Your task to perform on an android device: toggle data saver in the chrome app Image 0: 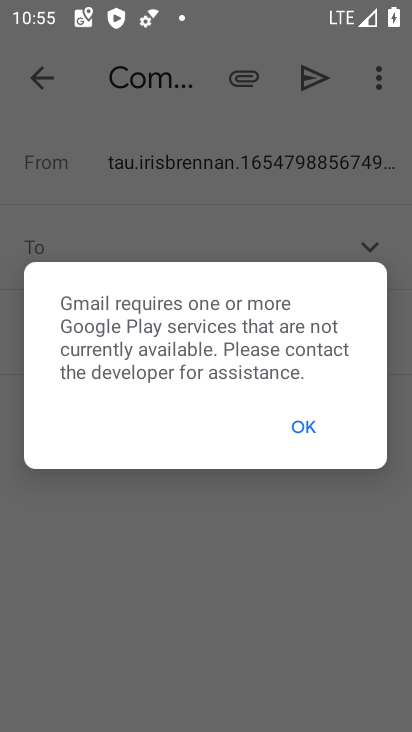
Step 0: click (293, 418)
Your task to perform on an android device: toggle data saver in the chrome app Image 1: 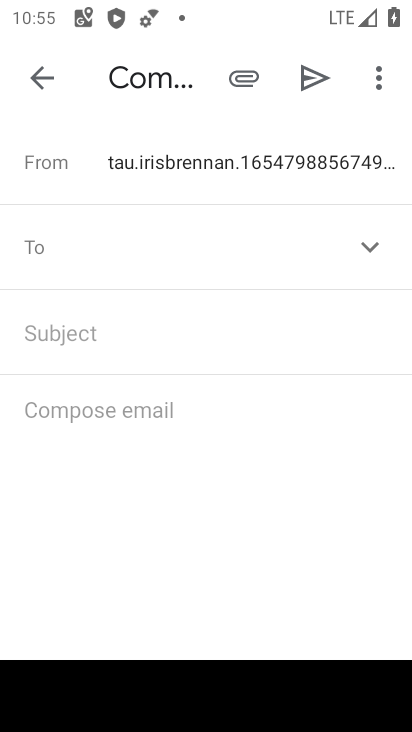
Step 1: press back button
Your task to perform on an android device: toggle data saver in the chrome app Image 2: 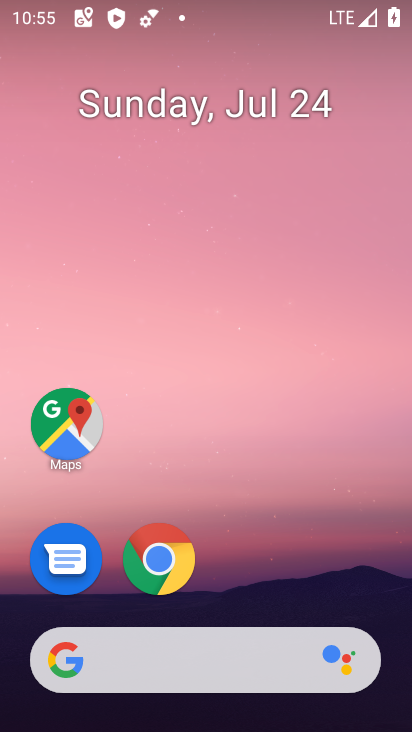
Step 2: click (177, 582)
Your task to perform on an android device: toggle data saver in the chrome app Image 3: 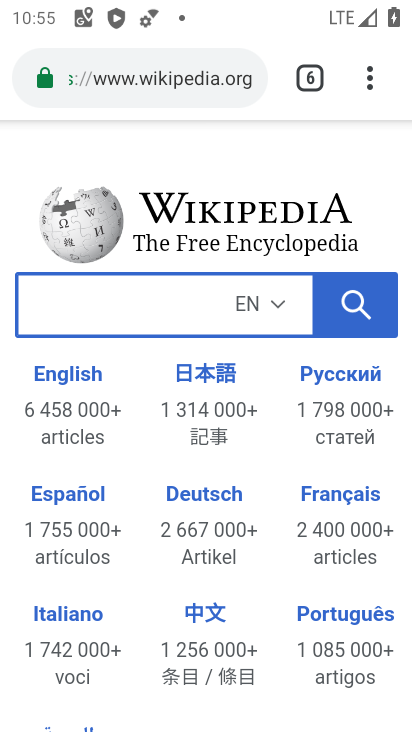
Step 3: drag from (373, 81) to (94, 613)
Your task to perform on an android device: toggle data saver in the chrome app Image 4: 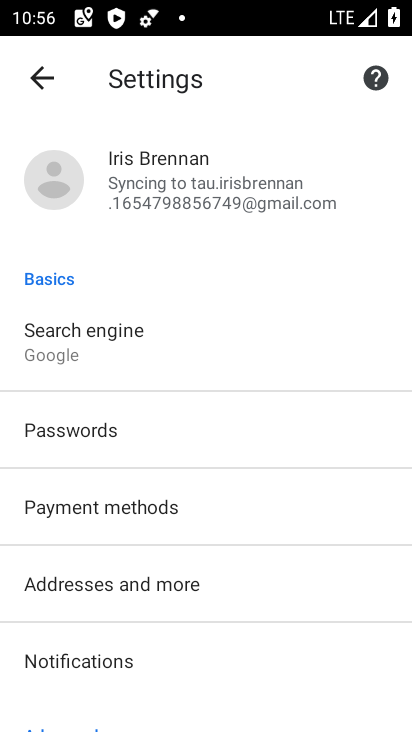
Step 4: drag from (149, 633) to (249, 115)
Your task to perform on an android device: toggle data saver in the chrome app Image 5: 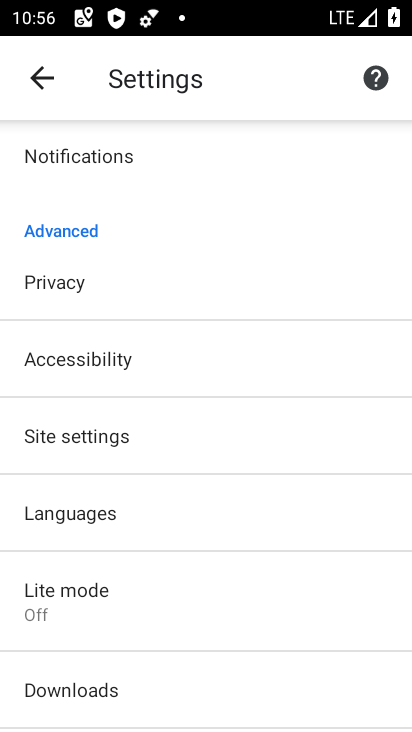
Step 5: click (111, 607)
Your task to perform on an android device: toggle data saver in the chrome app Image 6: 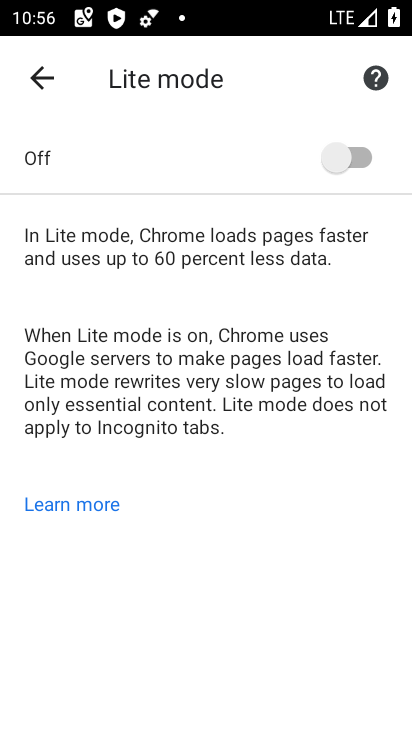
Step 6: click (346, 159)
Your task to perform on an android device: toggle data saver in the chrome app Image 7: 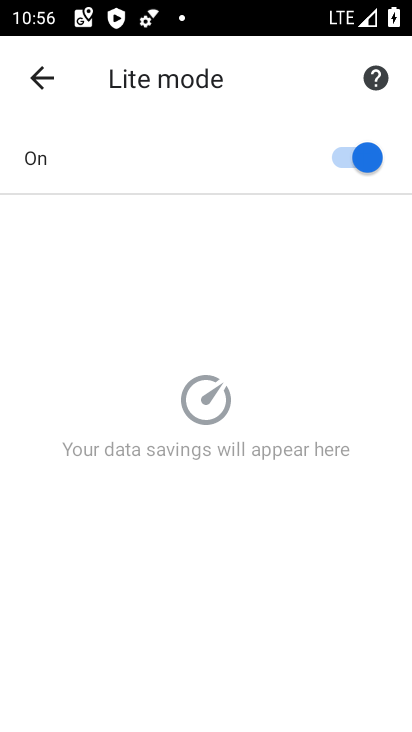
Step 7: task complete